Your task to perform on an android device: Show me popular videos on Youtube Image 0: 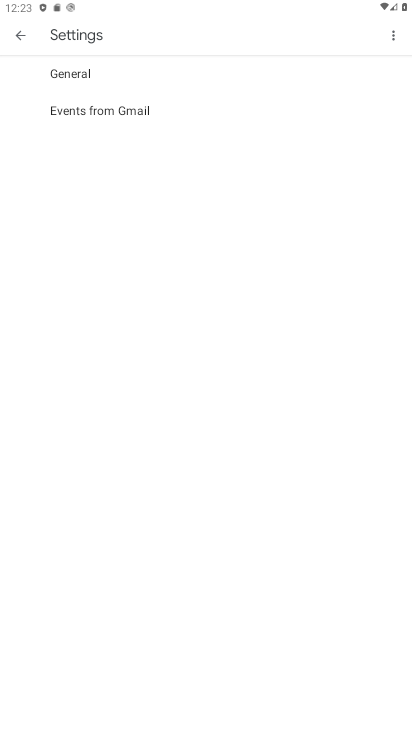
Step 0: press back button
Your task to perform on an android device: Show me popular videos on Youtube Image 1: 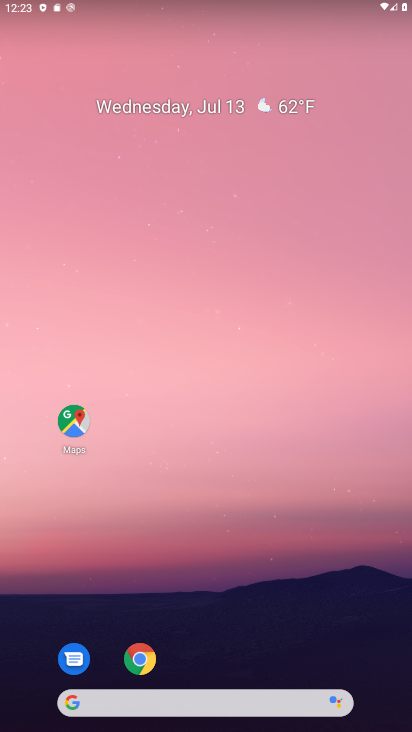
Step 1: drag from (251, 649) to (225, 140)
Your task to perform on an android device: Show me popular videos on Youtube Image 2: 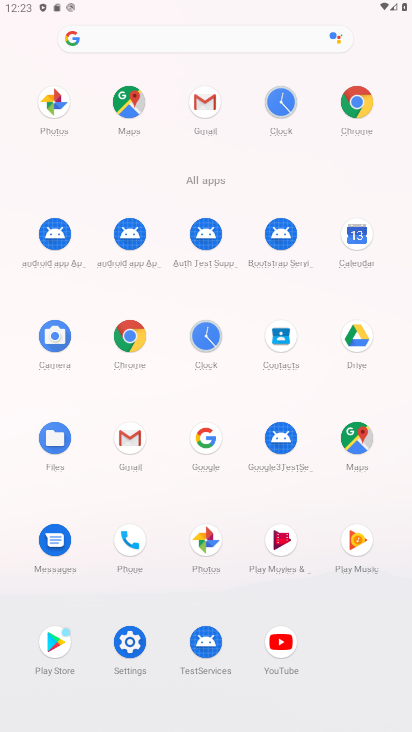
Step 2: drag from (229, 264) to (186, 88)
Your task to perform on an android device: Show me popular videos on Youtube Image 3: 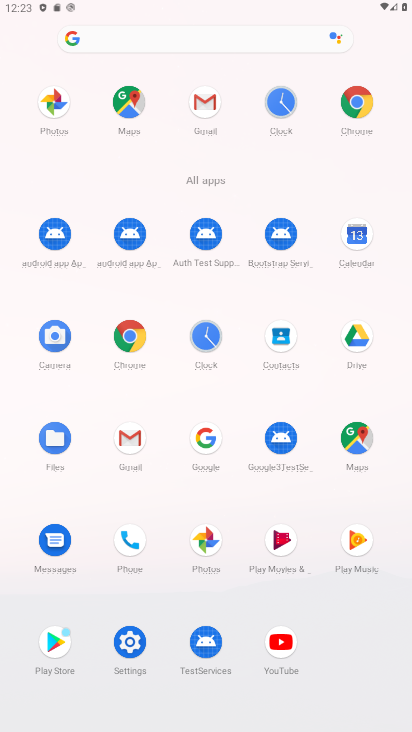
Step 3: click (284, 641)
Your task to perform on an android device: Show me popular videos on Youtube Image 4: 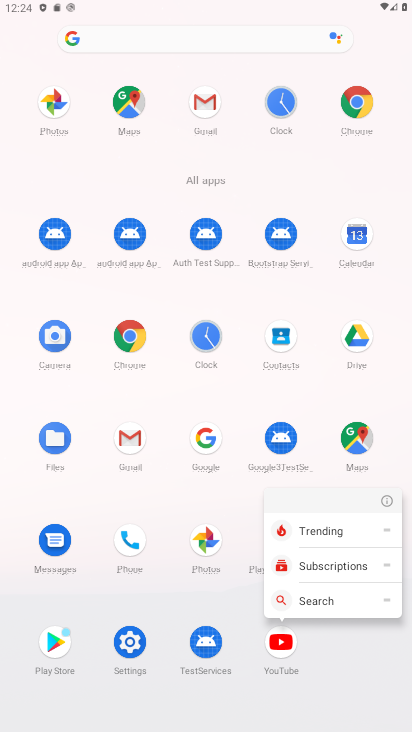
Step 4: click (288, 628)
Your task to perform on an android device: Show me popular videos on Youtube Image 5: 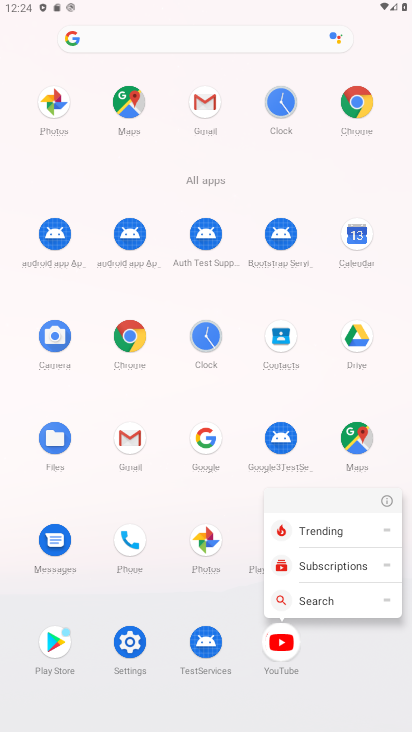
Step 5: click (285, 650)
Your task to perform on an android device: Show me popular videos on Youtube Image 6: 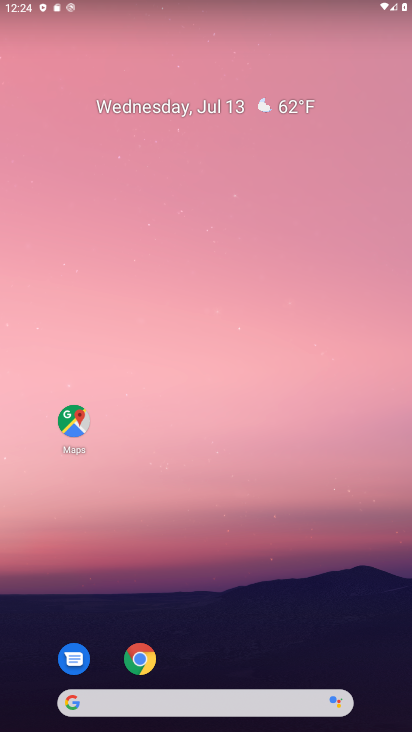
Step 6: drag from (263, 525) to (221, 289)
Your task to perform on an android device: Show me popular videos on Youtube Image 7: 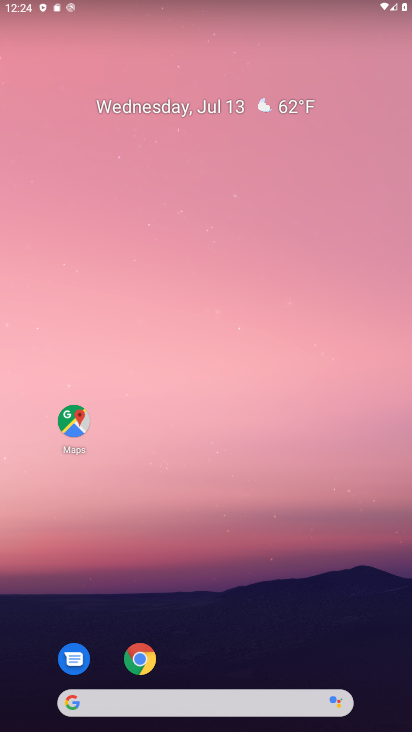
Step 7: drag from (247, 637) to (164, 267)
Your task to perform on an android device: Show me popular videos on Youtube Image 8: 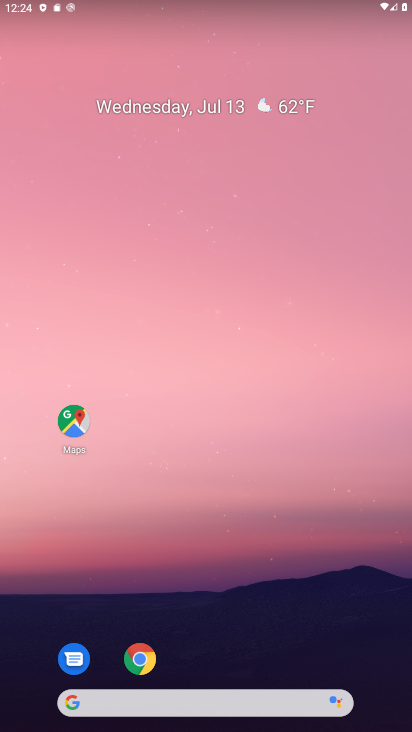
Step 8: drag from (216, 730) to (180, 157)
Your task to perform on an android device: Show me popular videos on Youtube Image 9: 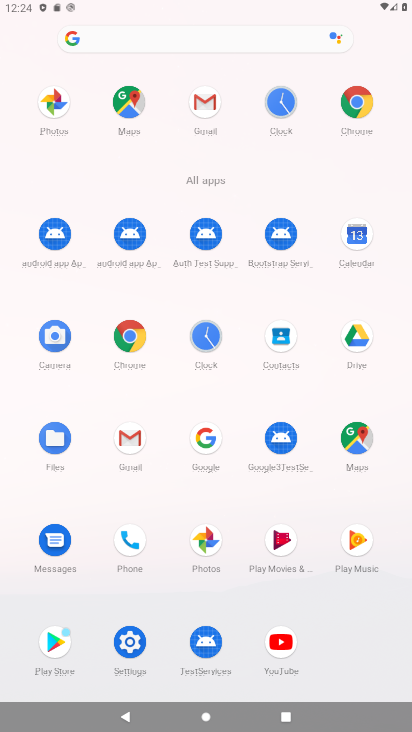
Step 9: click (280, 630)
Your task to perform on an android device: Show me popular videos on Youtube Image 10: 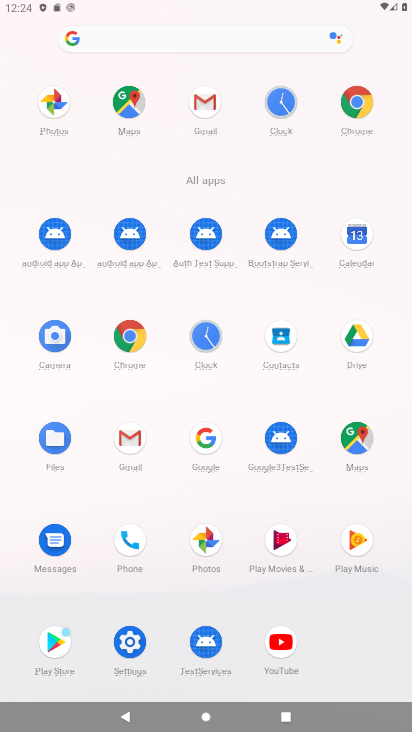
Step 10: click (278, 627)
Your task to perform on an android device: Show me popular videos on Youtube Image 11: 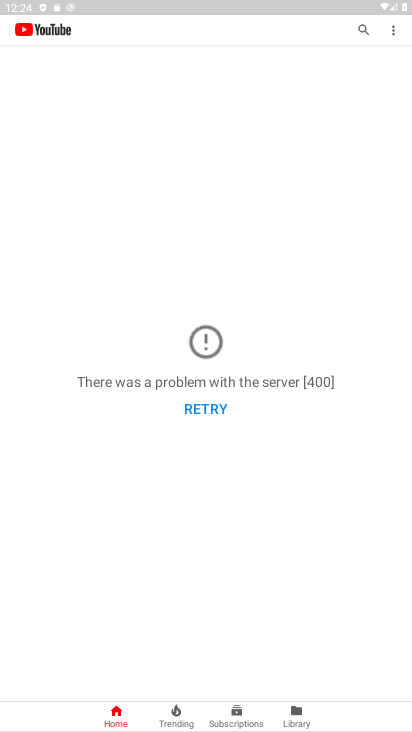
Step 11: task complete